Your task to perform on an android device: create a new album in the google photos Image 0: 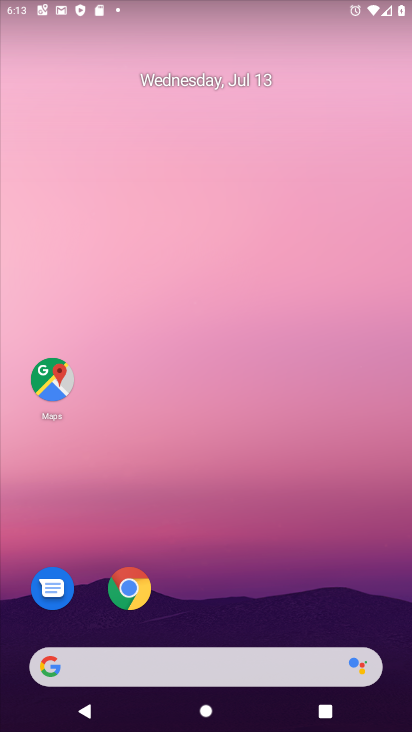
Step 0: click (130, 591)
Your task to perform on an android device: create a new album in the google photos Image 1: 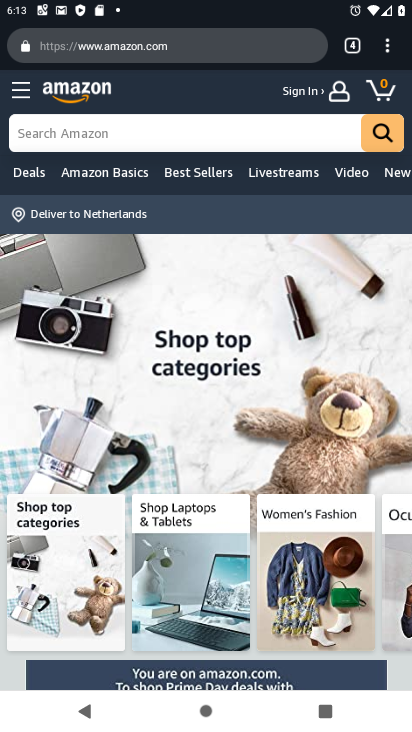
Step 1: press home button
Your task to perform on an android device: create a new album in the google photos Image 2: 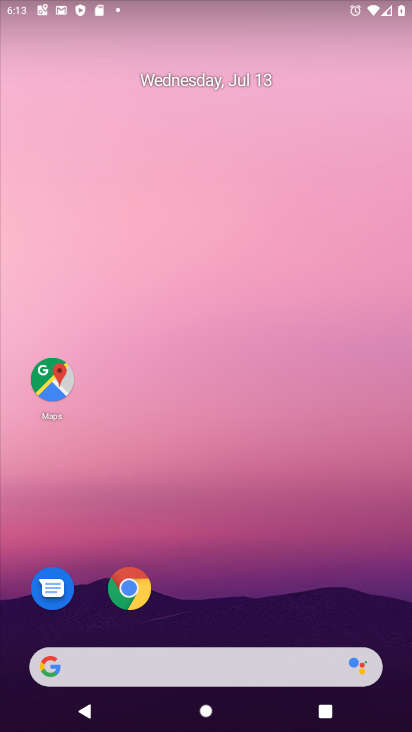
Step 2: drag from (183, 549) to (183, 4)
Your task to perform on an android device: create a new album in the google photos Image 3: 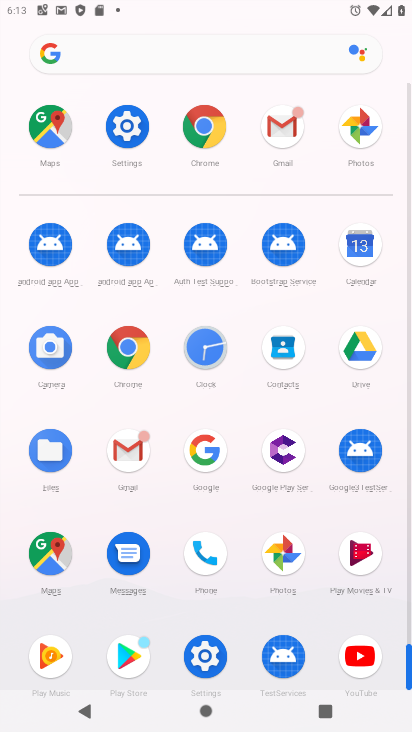
Step 3: click (359, 139)
Your task to perform on an android device: create a new album in the google photos Image 4: 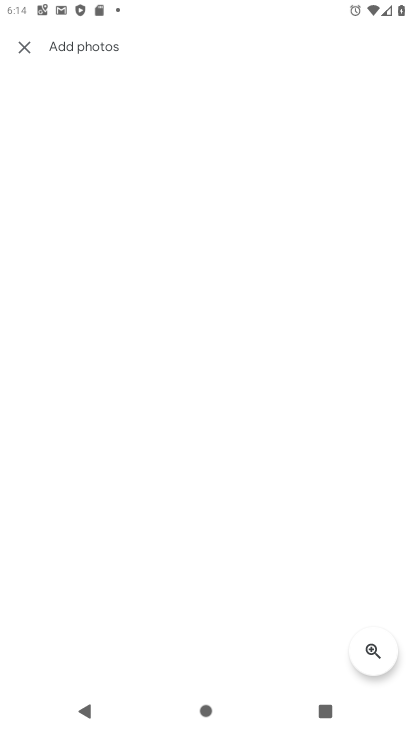
Step 4: click (19, 50)
Your task to perform on an android device: create a new album in the google photos Image 5: 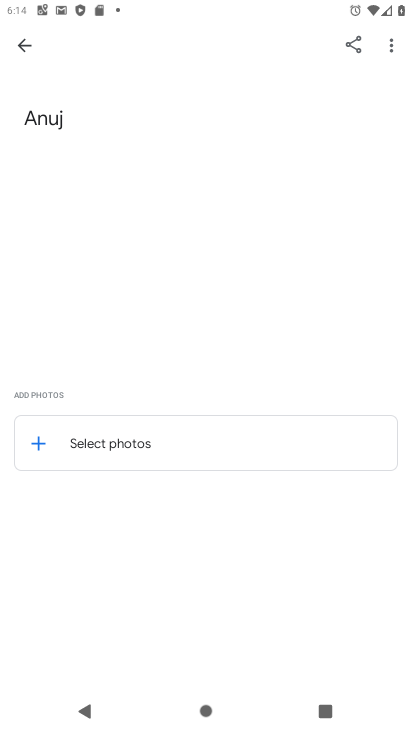
Step 5: click (106, 434)
Your task to perform on an android device: create a new album in the google photos Image 6: 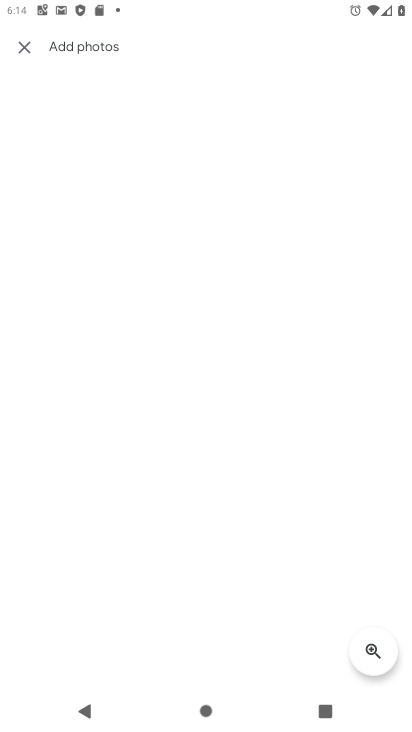
Step 6: task complete